Your task to perform on an android device: Find coffee shops on Maps Image 0: 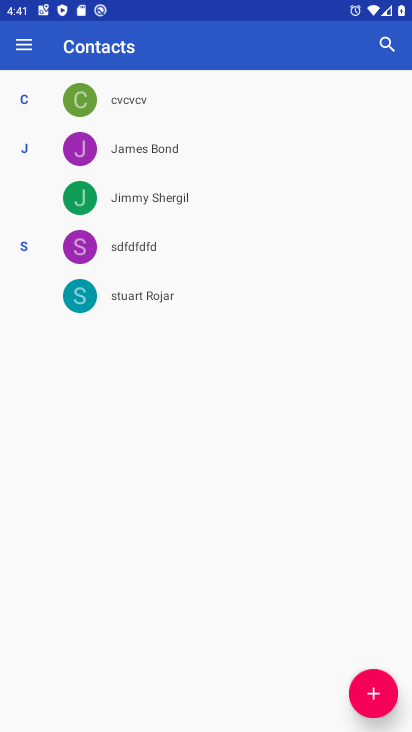
Step 0: press home button
Your task to perform on an android device: Find coffee shops on Maps Image 1: 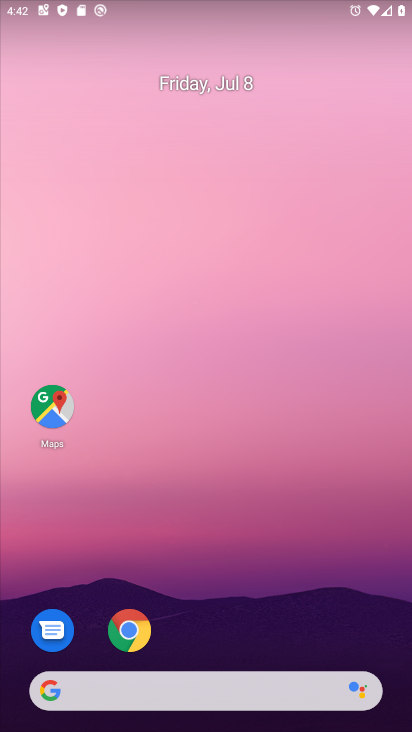
Step 1: click (49, 409)
Your task to perform on an android device: Find coffee shops on Maps Image 2: 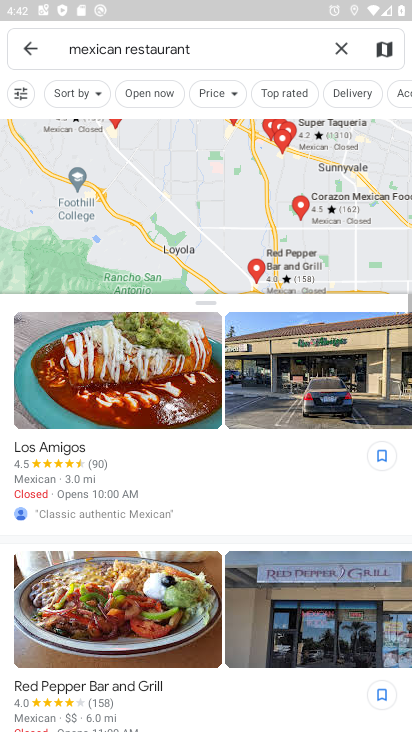
Step 2: click (342, 51)
Your task to perform on an android device: Find coffee shops on Maps Image 3: 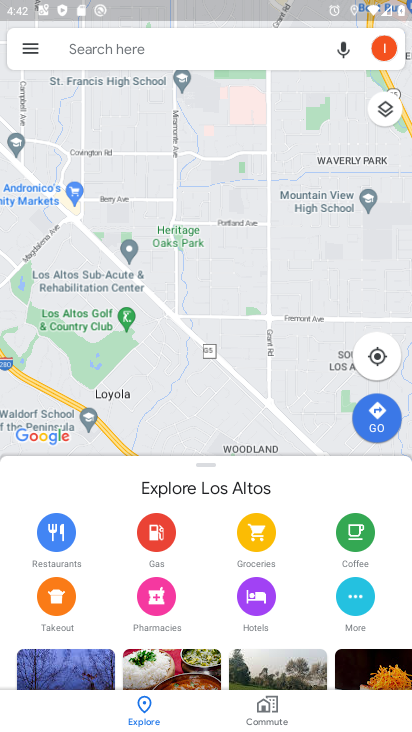
Step 3: type "coffee shops"
Your task to perform on an android device: Find coffee shops on Maps Image 4: 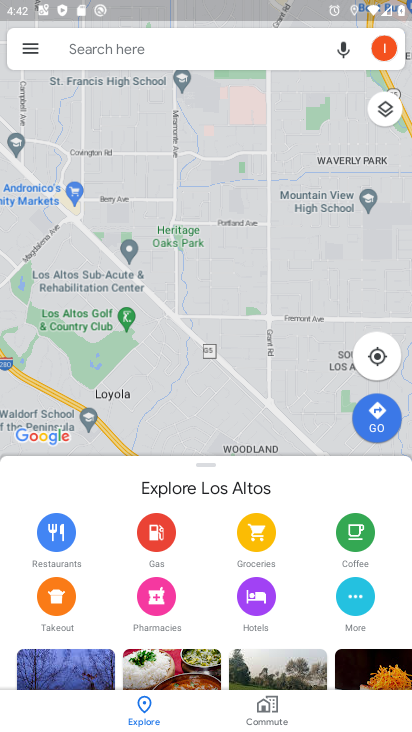
Step 4: click (150, 52)
Your task to perform on an android device: Find coffee shops on Maps Image 5: 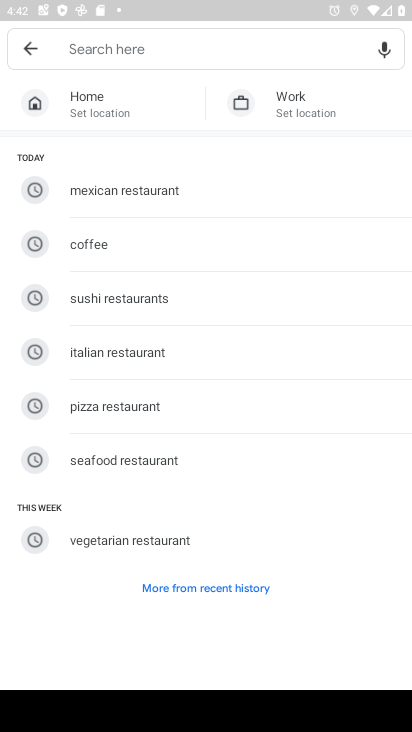
Step 5: type "coffee shops"
Your task to perform on an android device: Find coffee shops on Maps Image 6: 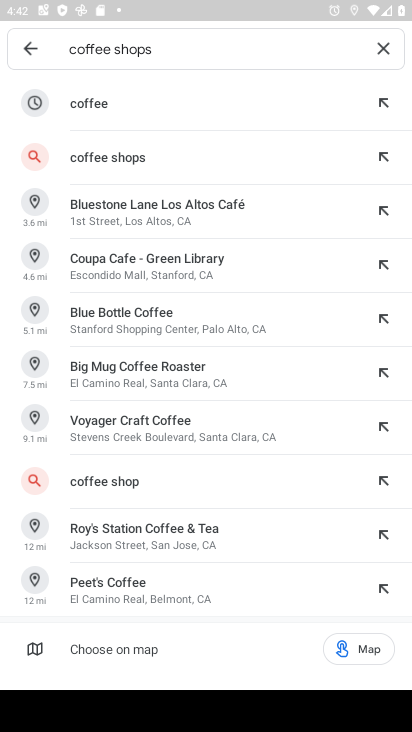
Step 6: click (132, 160)
Your task to perform on an android device: Find coffee shops on Maps Image 7: 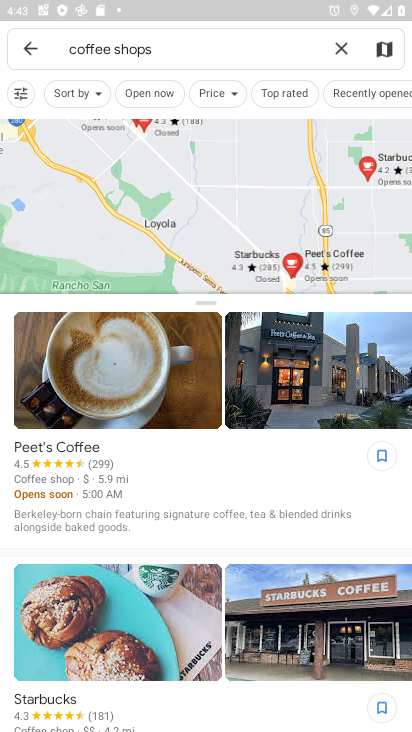
Step 7: task complete